Your task to perform on an android device: create a new album in the google photos Image 0: 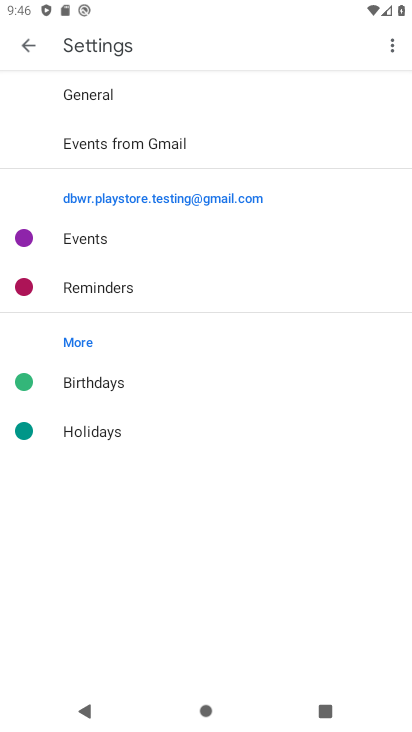
Step 0: press home button
Your task to perform on an android device: create a new album in the google photos Image 1: 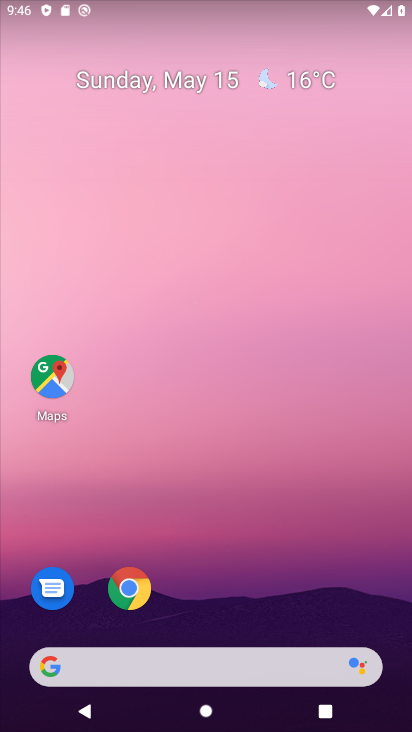
Step 1: drag from (189, 574) to (231, 23)
Your task to perform on an android device: create a new album in the google photos Image 2: 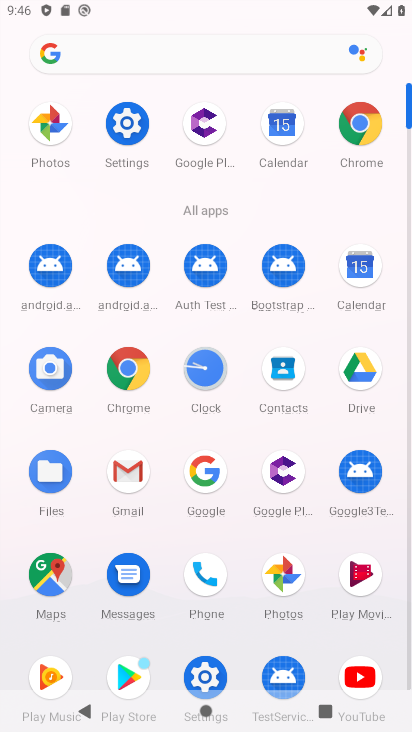
Step 2: click (51, 118)
Your task to perform on an android device: create a new album in the google photos Image 3: 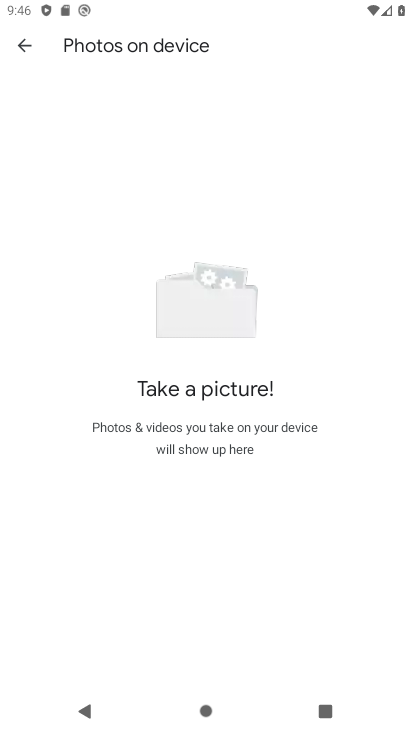
Step 3: click (23, 50)
Your task to perform on an android device: create a new album in the google photos Image 4: 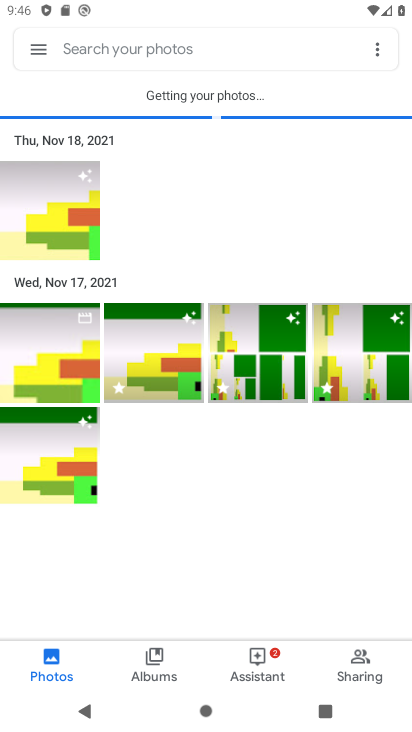
Step 4: click (173, 665)
Your task to perform on an android device: create a new album in the google photos Image 5: 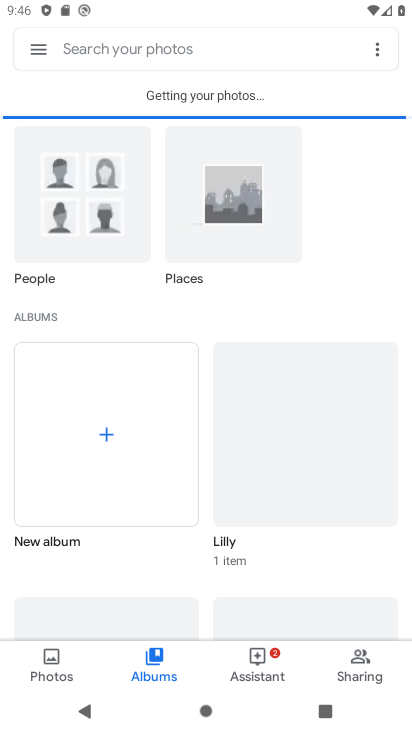
Step 5: click (376, 59)
Your task to perform on an android device: create a new album in the google photos Image 6: 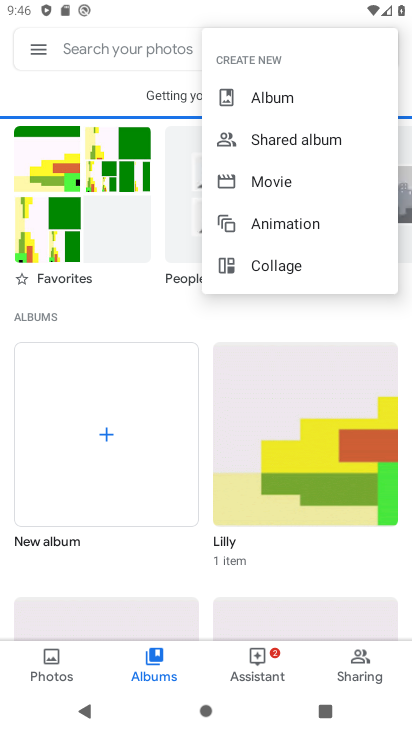
Step 6: click (287, 101)
Your task to perform on an android device: create a new album in the google photos Image 7: 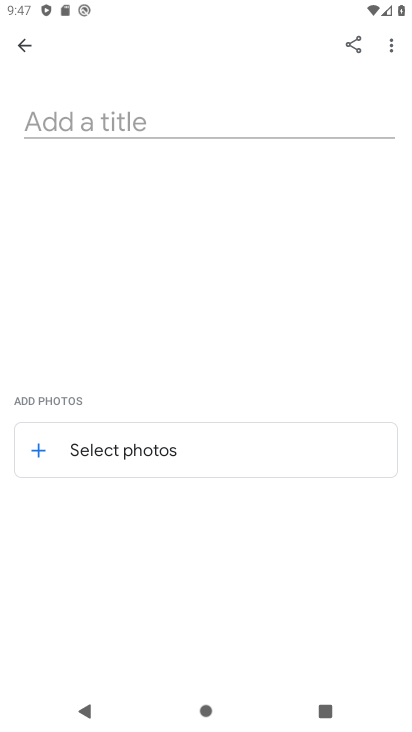
Step 7: click (250, 123)
Your task to perform on an android device: create a new album in the google photos Image 8: 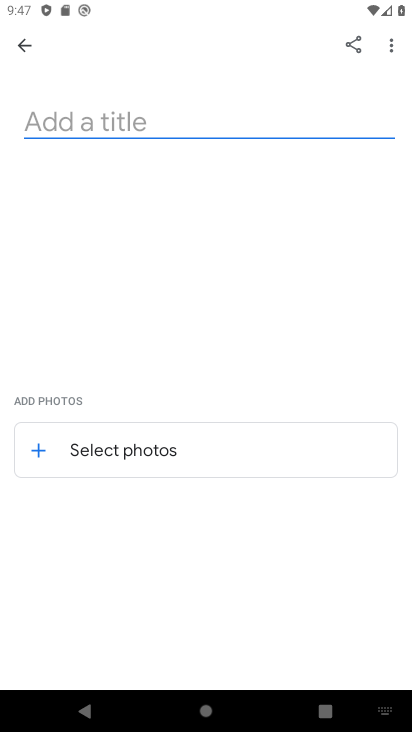
Step 8: type "clicks"
Your task to perform on an android device: create a new album in the google photos Image 9: 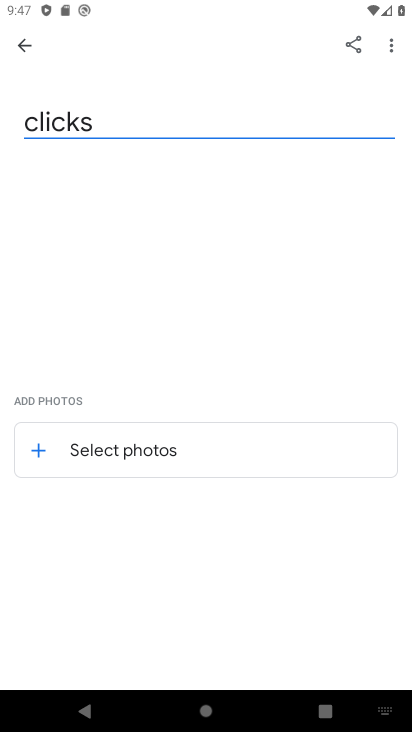
Step 9: click (394, 45)
Your task to perform on an android device: create a new album in the google photos Image 10: 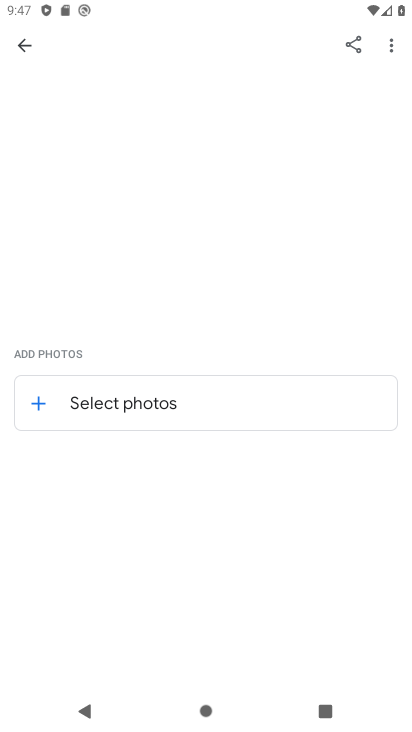
Step 10: click (392, 48)
Your task to perform on an android device: create a new album in the google photos Image 11: 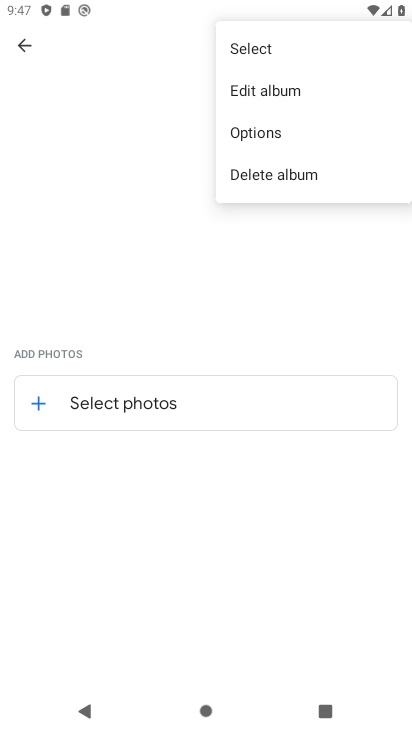
Step 11: click (191, 245)
Your task to perform on an android device: create a new album in the google photos Image 12: 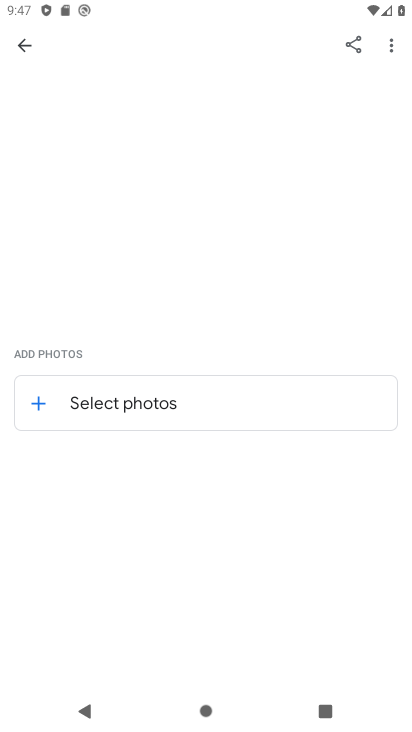
Step 12: task complete